Your task to perform on an android device: see creations saved in the google photos Image 0: 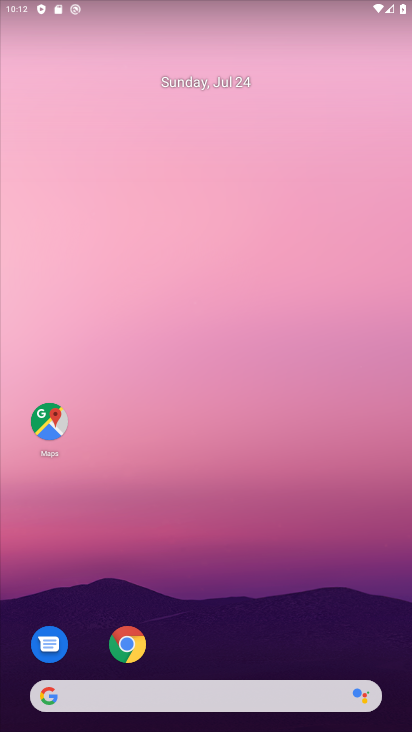
Step 0: drag from (285, 669) to (278, 20)
Your task to perform on an android device: see creations saved in the google photos Image 1: 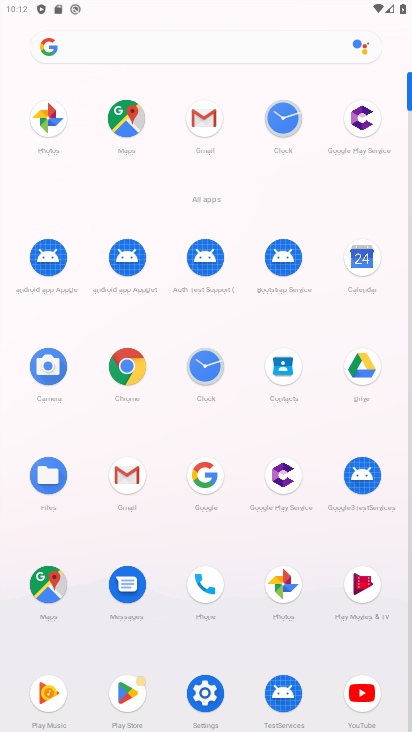
Step 1: click (50, 120)
Your task to perform on an android device: see creations saved in the google photos Image 2: 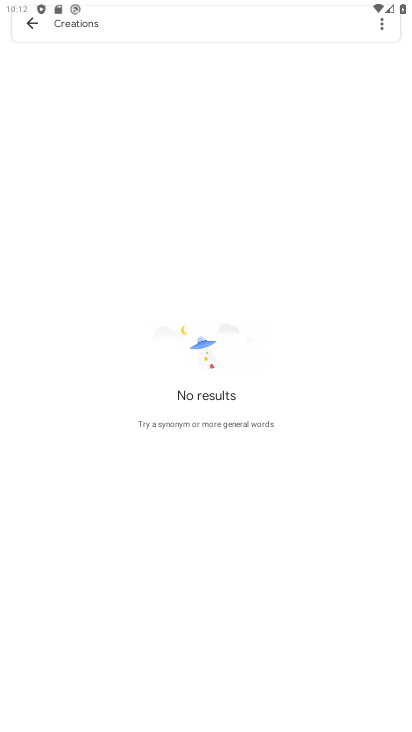
Step 2: task complete